Your task to perform on an android device: turn off notifications in google photos Image 0: 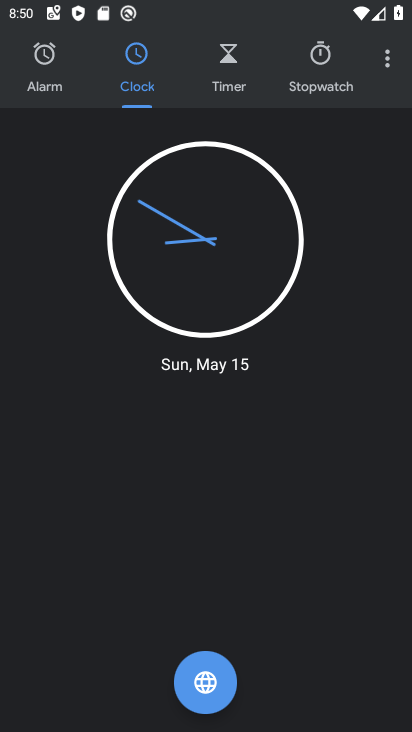
Step 0: press home button
Your task to perform on an android device: turn off notifications in google photos Image 1: 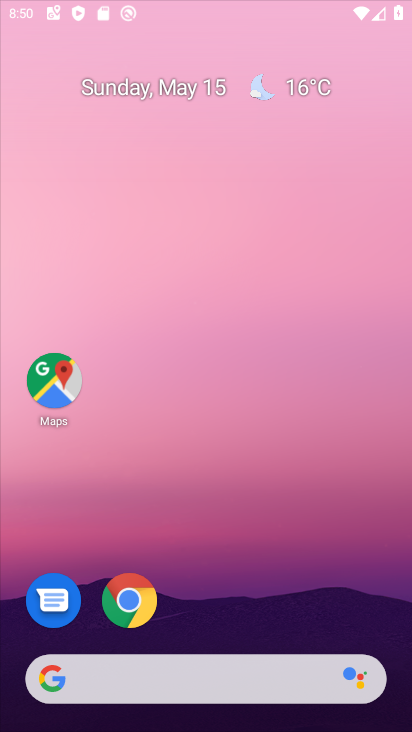
Step 1: drag from (265, 509) to (298, 64)
Your task to perform on an android device: turn off notifications in google photos Image 2: 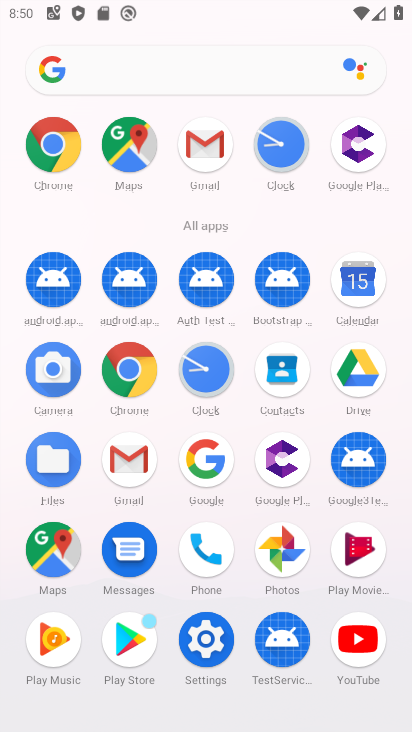
Step 2: click (285, 553)
Your task to perform on an android device: turn off notifications in google photos Image 3: 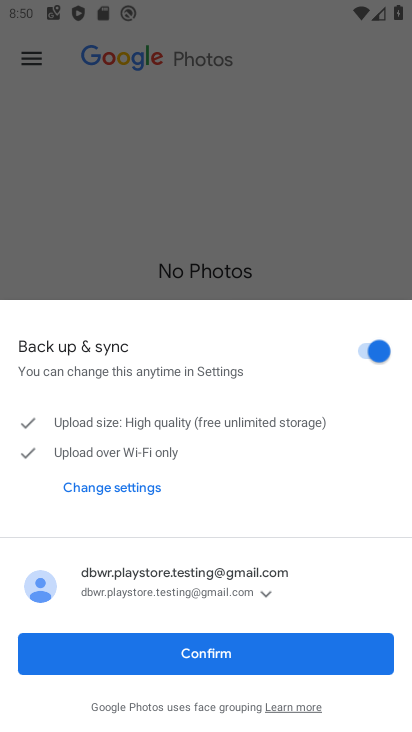
Step 3: click (216, 656)
Your task to perform on an android device: turn off notifications in google photos Image 4: 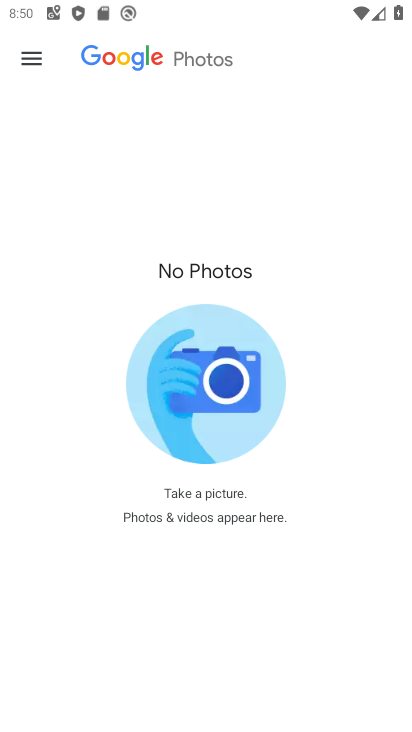
Step 4: click (36, 56)
Your task to perform on an android device: turn off notifications in google photos Image 5: 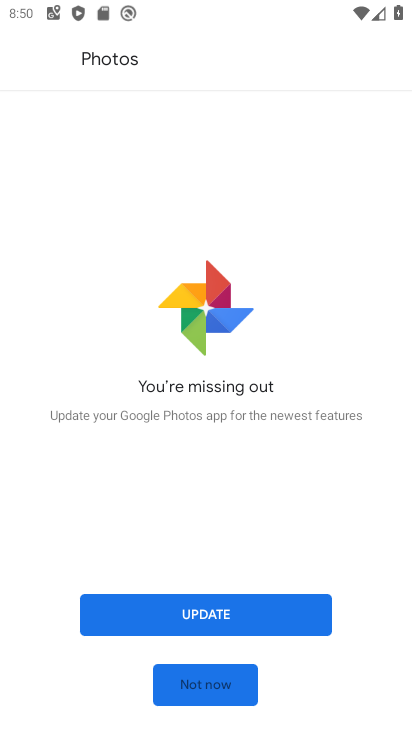
Step 5: click (200, 608)
Your task to perform on an android device: turn off notifications in google photos Image 6: 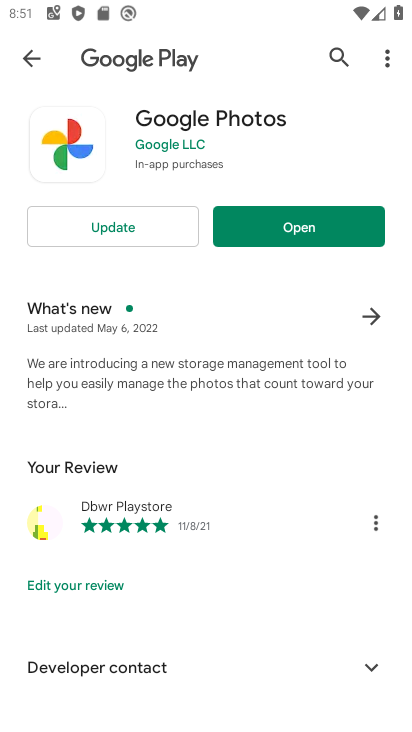
Step 6: click (317, 234)
Your task to perform on an android device: turn off notifications in google photos Image 7: 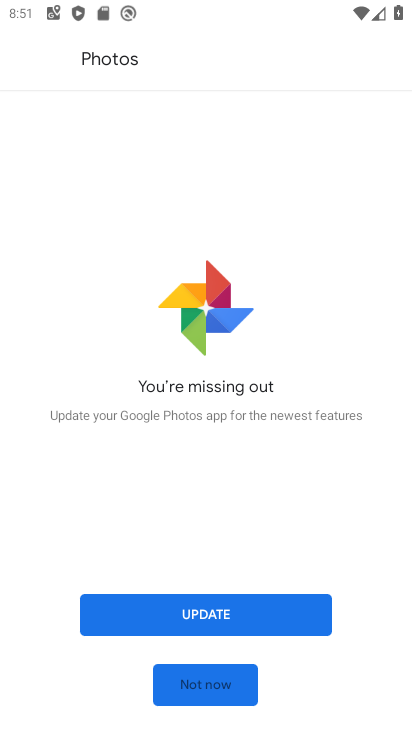
Step 7: click (196, 626)
Your task to perform on an android device: turn off notifications in google photos Image 8: 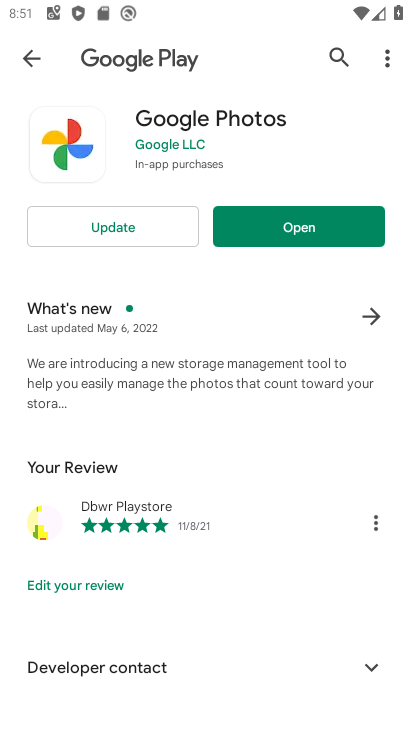
Step 8: click (153, 219)
Your task to perform on an android device: turn off notifications in google photos Image 9: 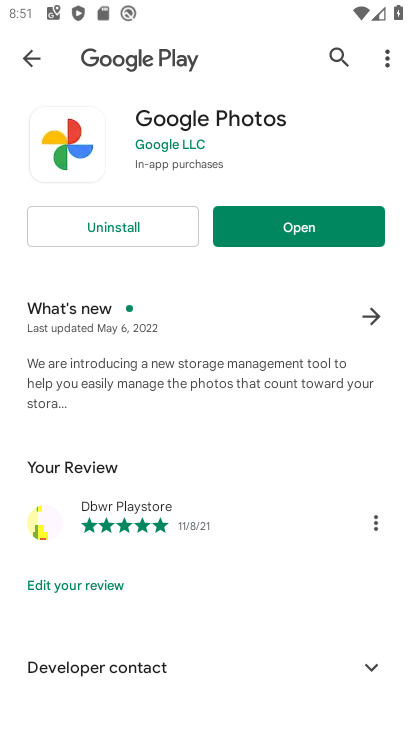
Step 9: click (265, 233)
Your task to perform on an android device: turn off notifications in google photos Image 10: 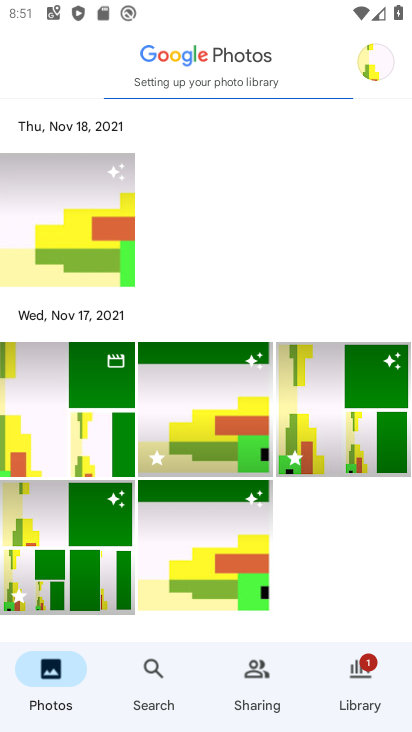
Step 10: click (373, 55)
Your task to perform on an android device: turn off notifications in google photos Image 11: 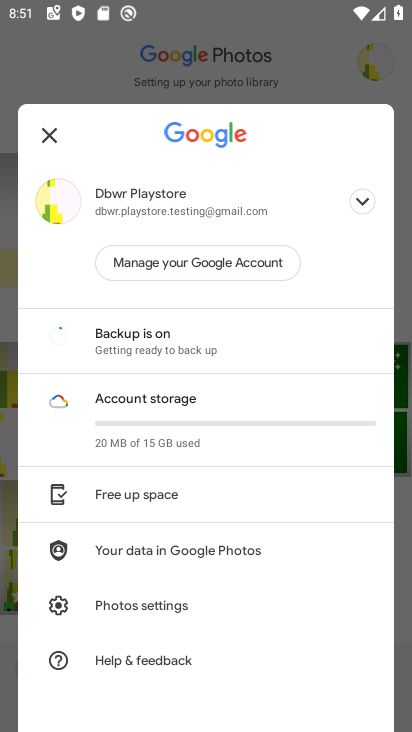
Step 11: click (146, 608)
Your task to perform on an android device: turn off notifications in google photos Image 12: 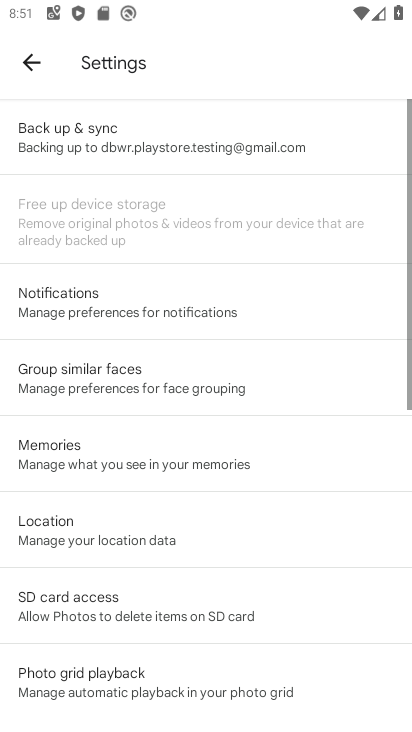
Step 12: click (88, 301)
Your task to perform on an android device: turn off notifications in google photos Image 13: 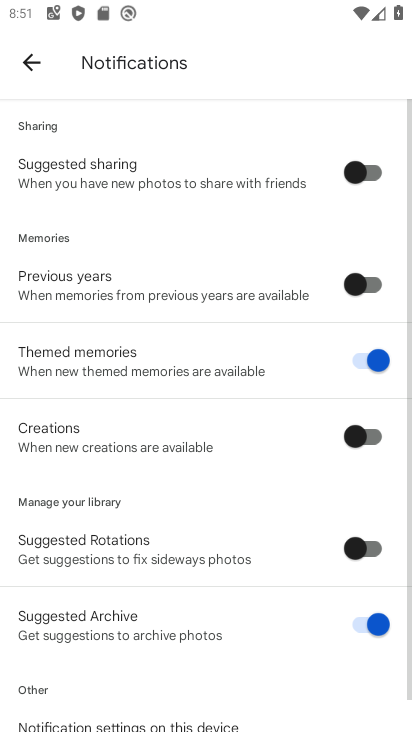
Step 13: drag from (175, 555) to (206, 195)
Your task to perform on an android device: turn off notifications in google photos Image 14: 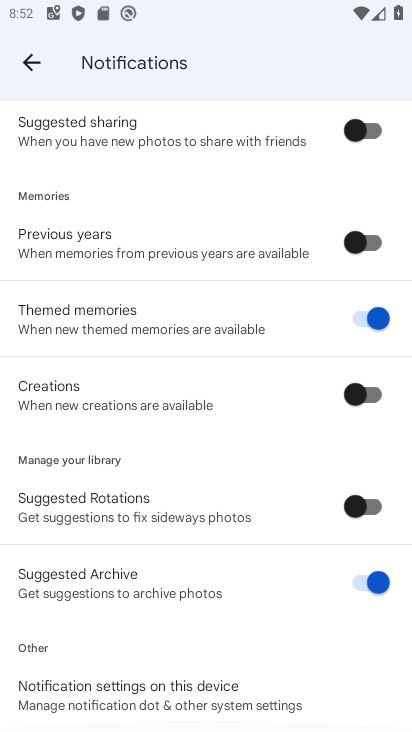
Step 14: click (157, 689)
Your task to perform on an android device: turn off notifications in google photos Image 15: 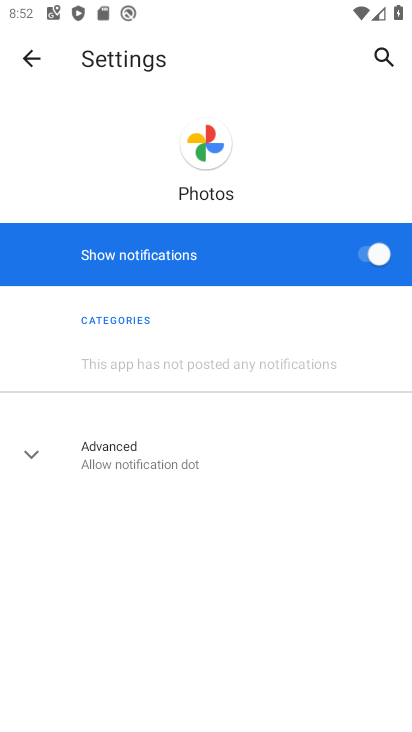
Step 15: click (376, 254)
Your task to perform on an android device: turn off notifications in google photos Image 16: 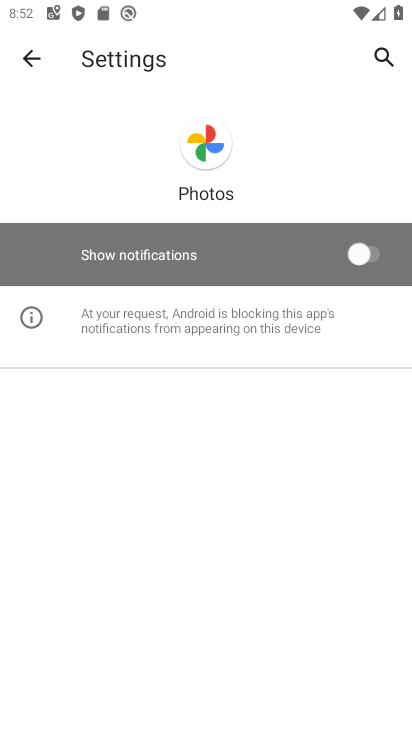
Step 16: task complete